Your task to perform on an android device: turn off notifications settings in the gmail app Image 0: 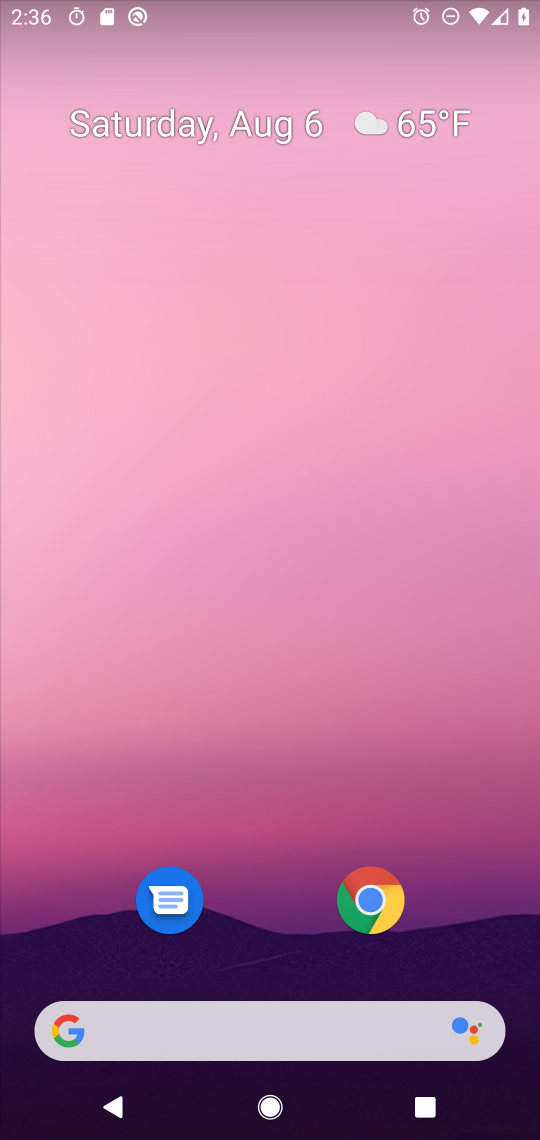
Step 0: drag from (255, 850) to (257, 118)
Your task to perform on an android device: turn off notifications settings in the gmail app Image 1: 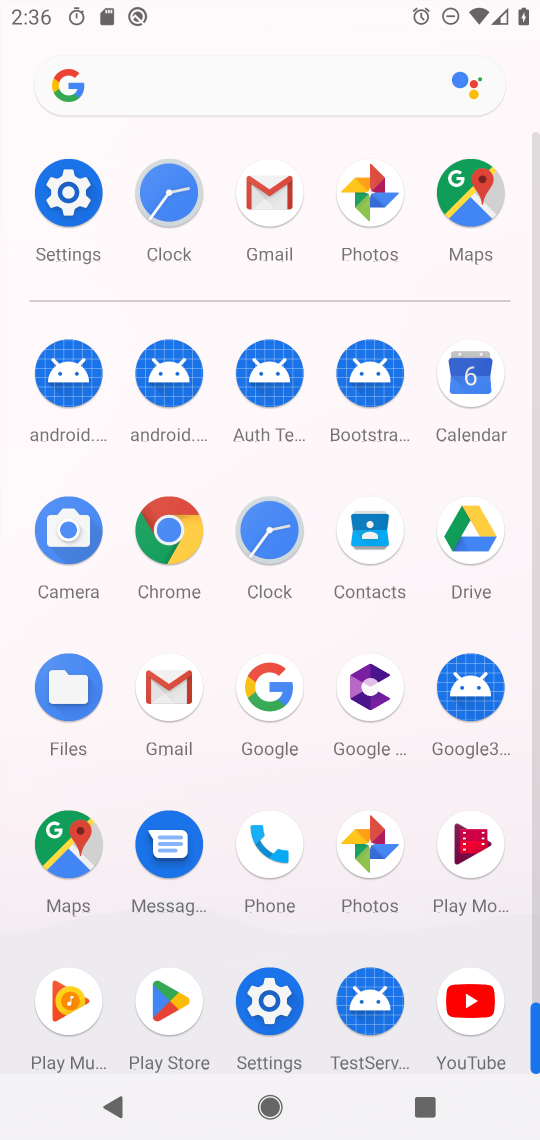
Step 1: click (165, 701)
Your task to perform on an android device: turn off notifications settings in the gmail app Image 2: 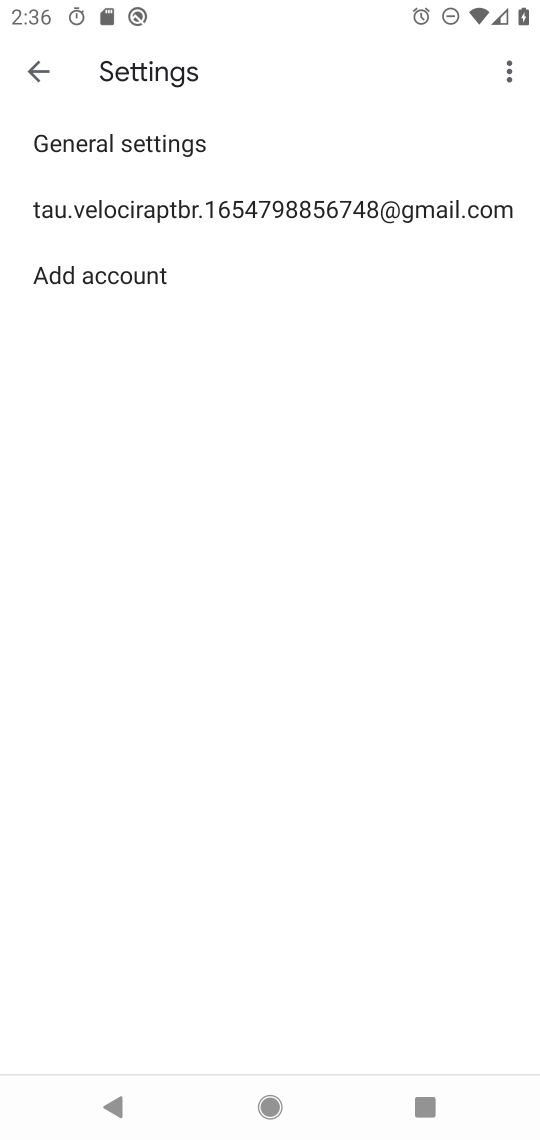
Step 2: click (168, 208)
Your task to perform on an android device: turn off notifications settings in the gmail app Image 3: 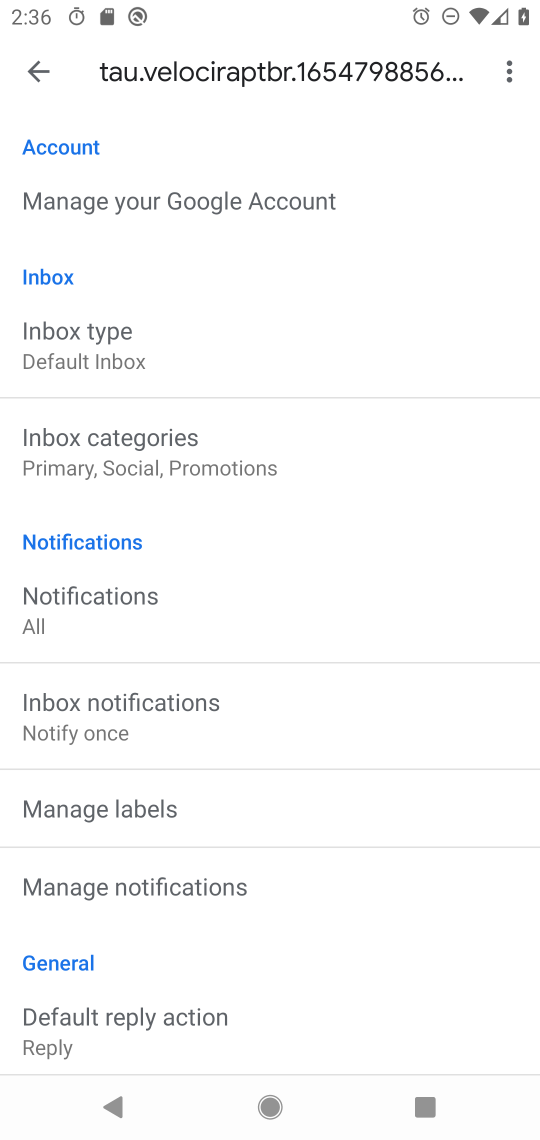
Step 3: click (70, 617)
Your task to perform on an android device: turn off notifications settings in the gmail app Image 4: 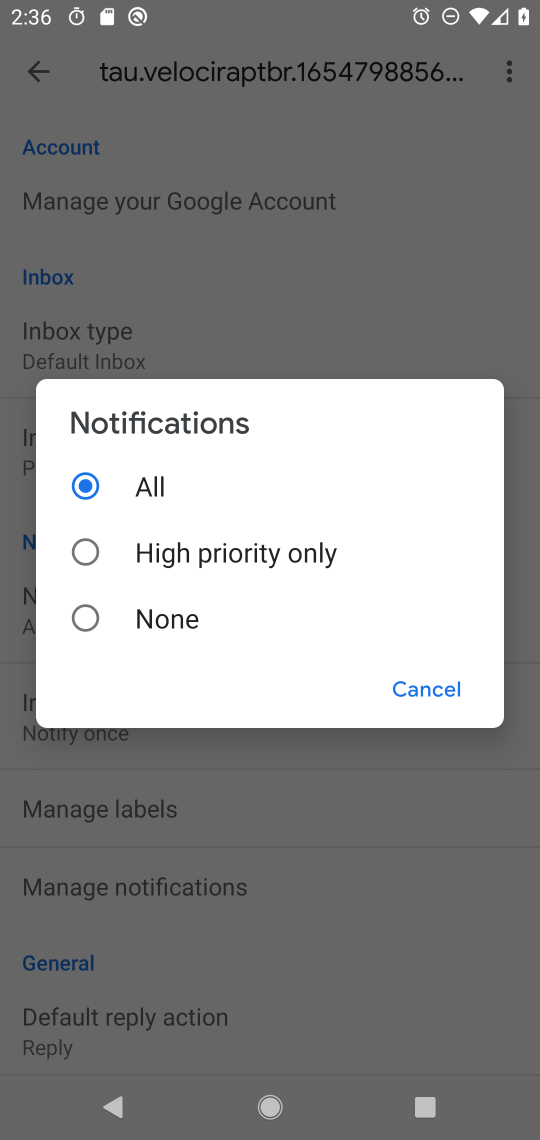
Step 4: click (70, 617)
Your task to perform on an android device: turn off notifications settings in the gmail app Image 5: 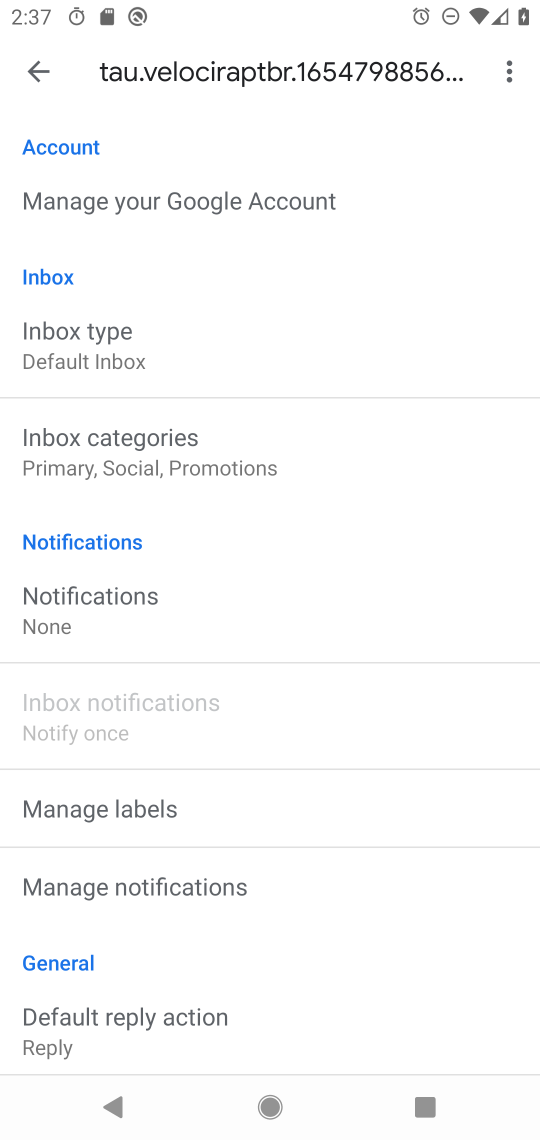
Step 5: task complete